Your task to perform on an android device: Open calendar and show me the third week of next month Image 0: 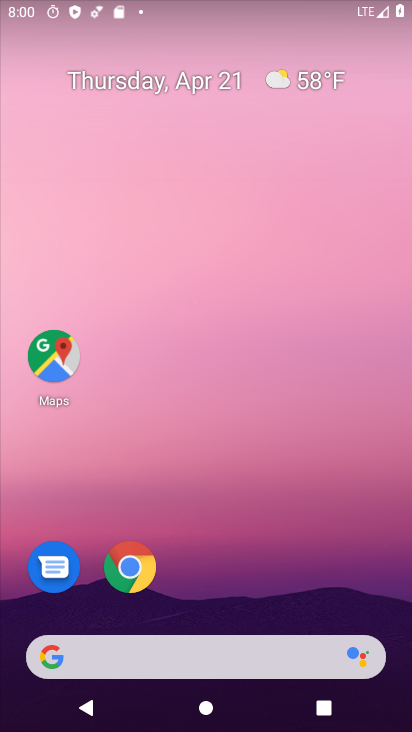
Step 0: drag from (222, 577) to (232, 26)
Your task to perform on an android device: Open calendar and show me the third week of next month Image 1: 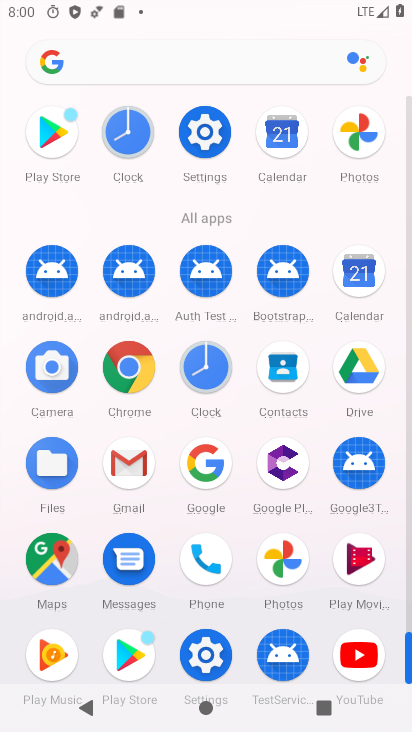
Step 1: click (282, 133)
Your task to perform on an android device: Open calendar and show me the third week of next month Image 2: 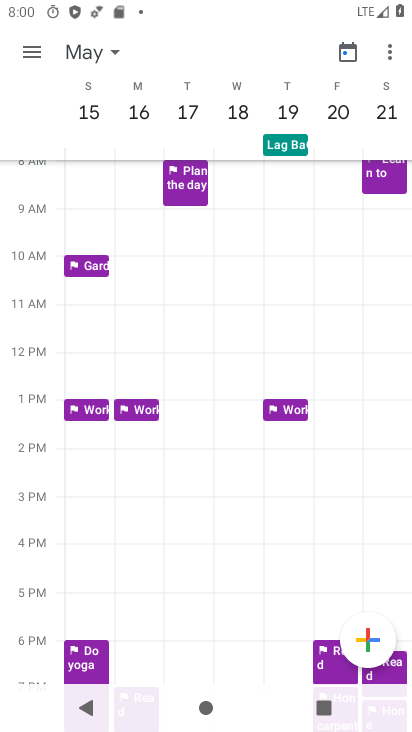
Step 2: click (350, 55)
Your task to perform on an android device: Open calendar and show me the third week of next month Image 3: 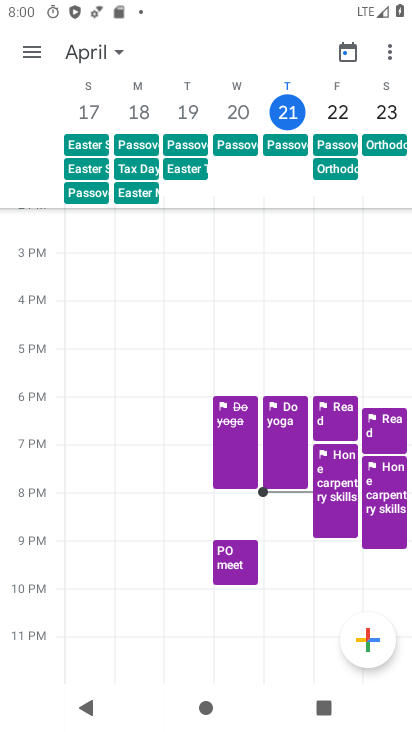
Step 3: click (118, 53)
Your task to perform on an android device: Open calendar and show me the third week of next month Image 4: 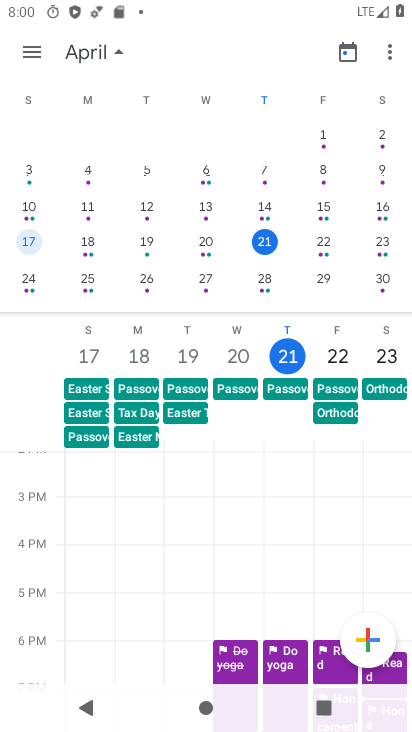
Step 4: drag from (354, 235) to (11, 234)
Your task to perform on an android device: Open calendar and show me the third week of next month Image 5: 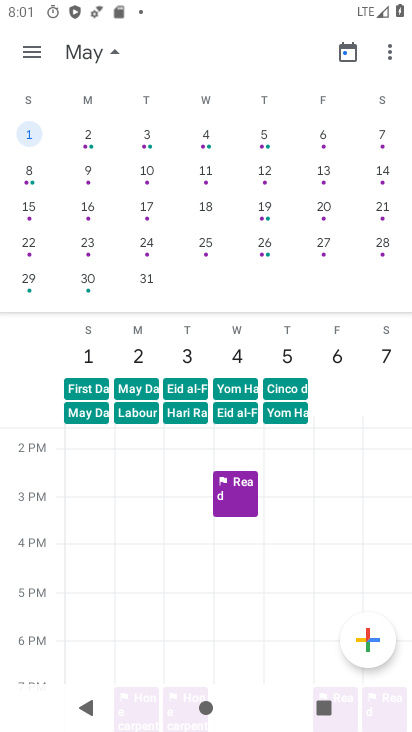
Step 5: click (93, 211)
Your task to perform on an android device: Open calendar and show me the third week of next month Image 6: 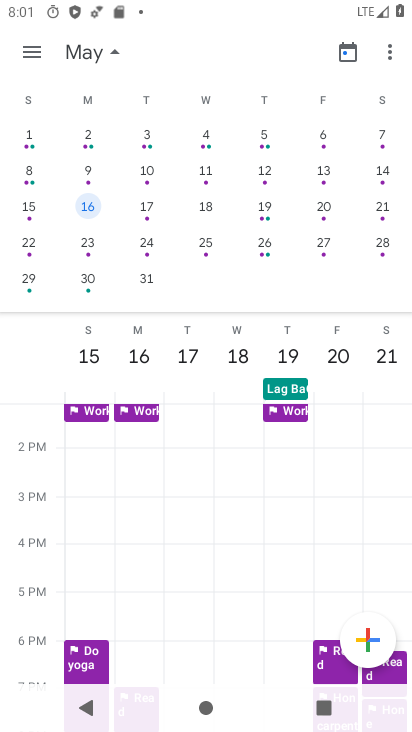
Step 6: click (29, 49)
Your task to perform on an android device: Open calendar and show me the third week of next month Image 7: 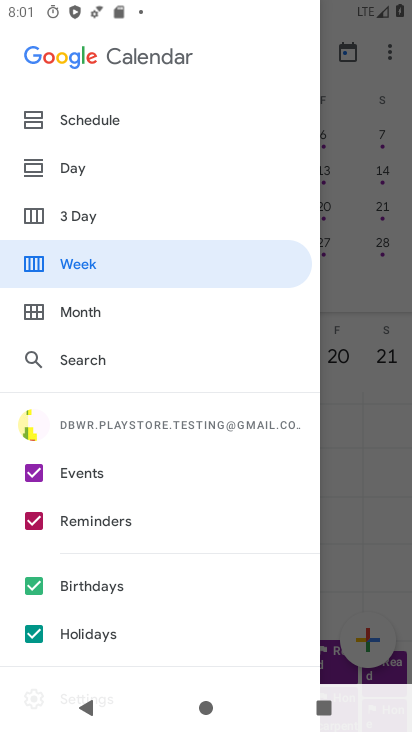
Step 7: click (89, 262)
Your task to perform on an android device: Open calendar and show me the third week of next month Image 8: 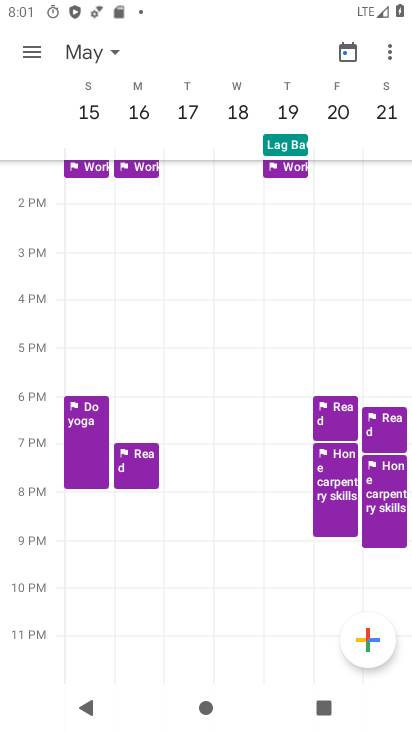
Step 8: task complete